Your task to perform on an android device: Add beats solo 3 to the cart on ebay.com, then select checkout. Image 0: 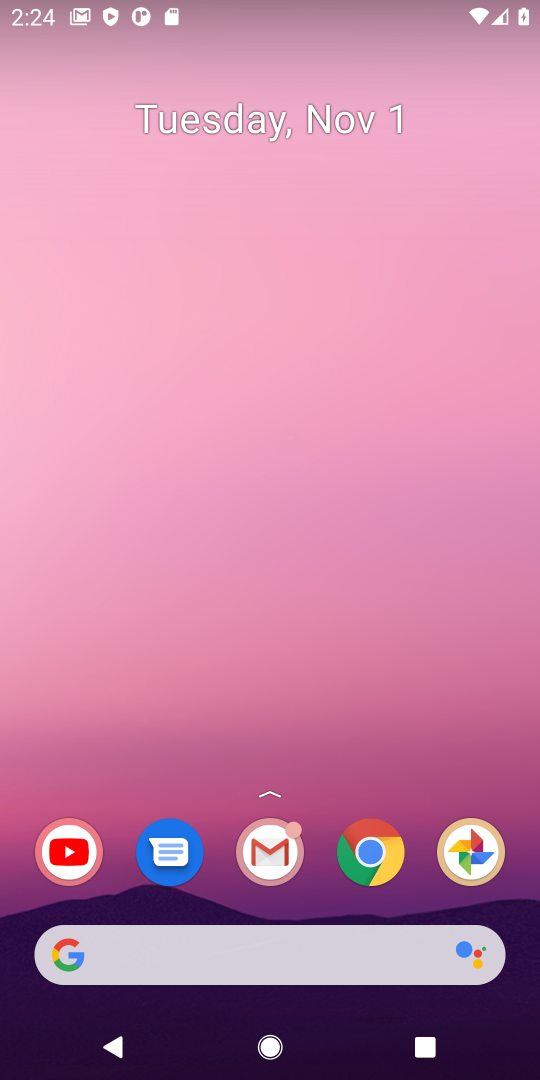
Step 0: click (325, 977)
Your task to perform on an android device: Add beats solo 3 to the cart on ebay.com, then select checkout. Image 1: 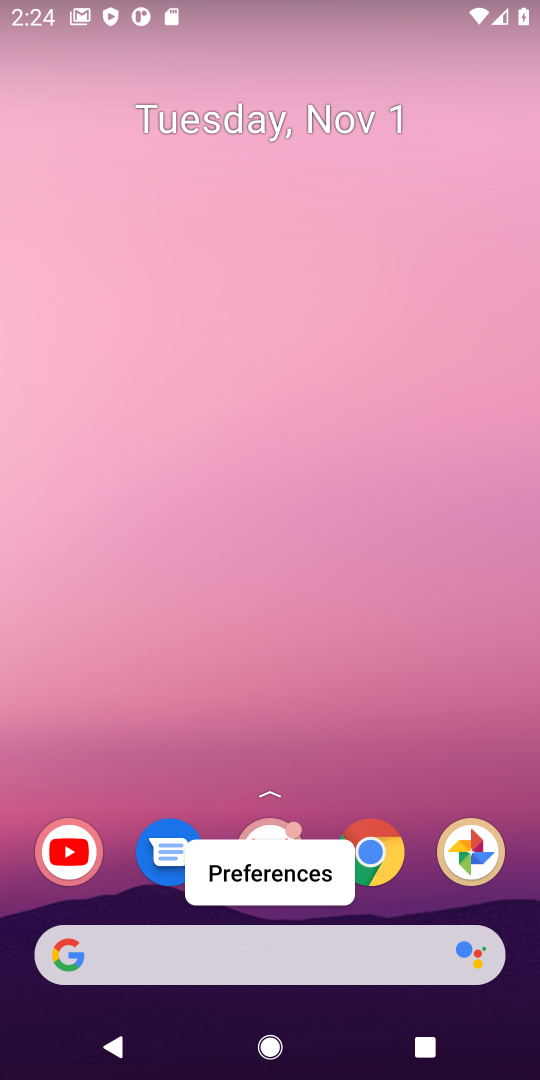
Step 1: click (325, 977)
Your task to perform on an android device: Add beats solo 3 to the cart on ebay.com, then select checkout. Image 2: 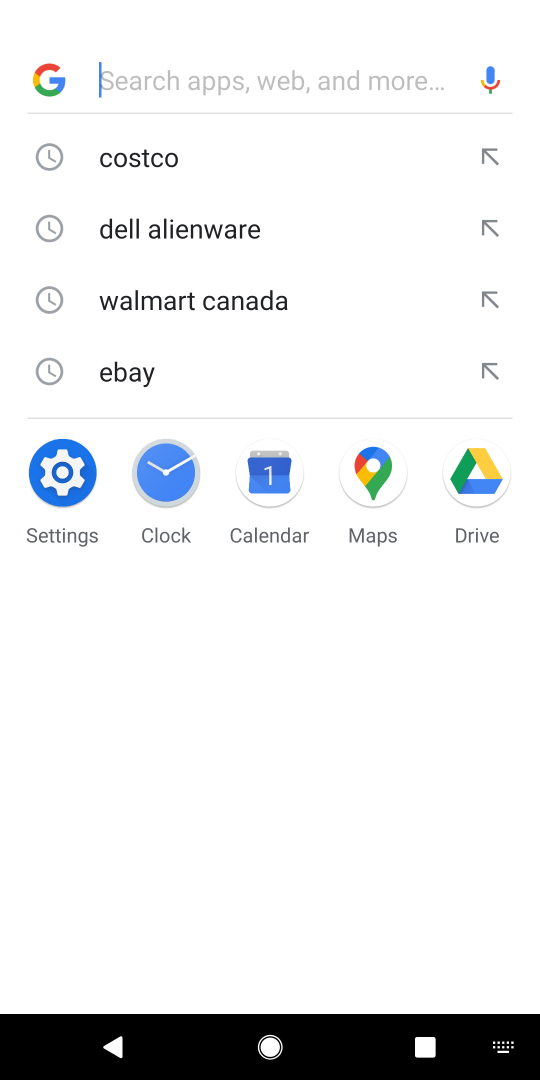
Step 2: click (87, 384)
Your task to perform on an android device: Add beats solo 3 to the cart on ebay.com, then select checkout. Image 3: 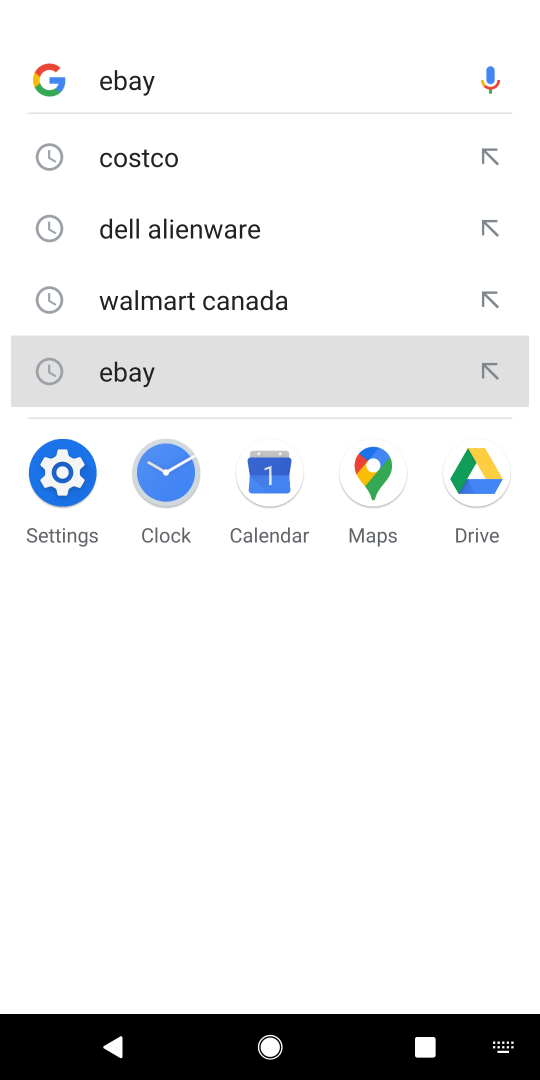
Step 3: click (108, 365)
Your task to perform on an android device: Add beats solo 3 to the cart on ebay.com, then select checkout. Image 4: 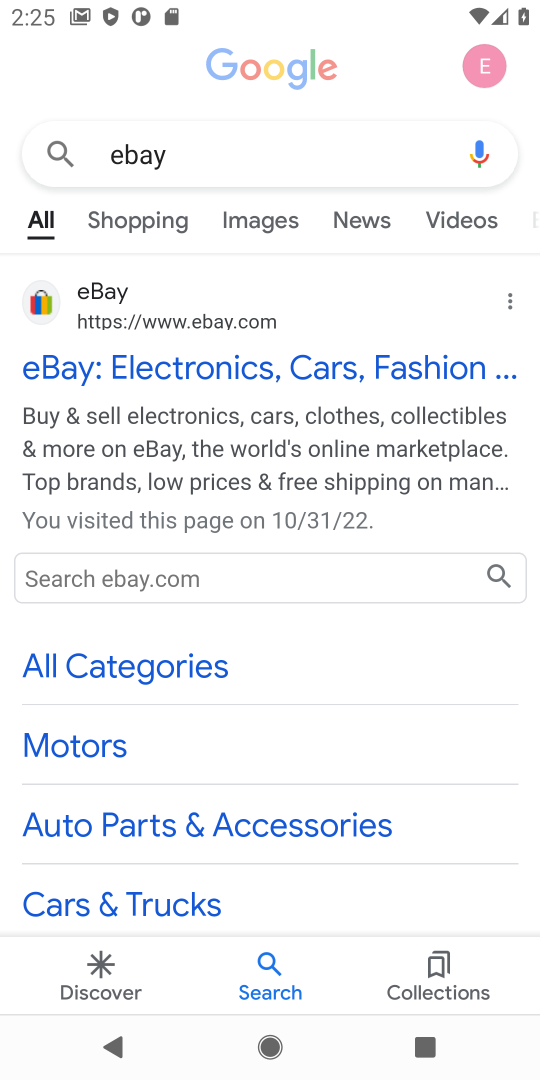
Step 4: press enter
Your task to perform on an android device: Add beats solo 3 to the cart on ebay.com, then select checkout. Image 5: 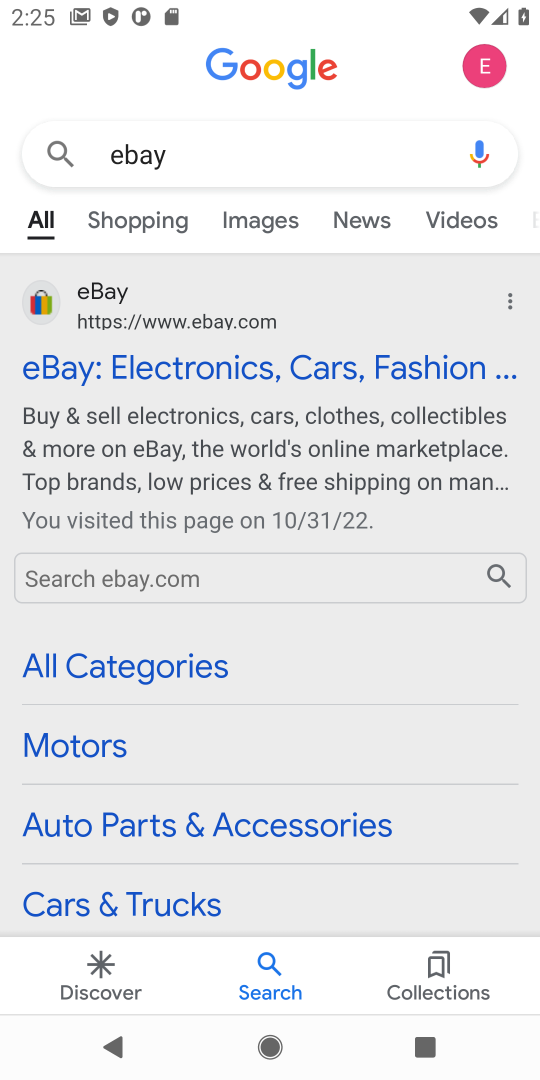
Step 5: click (129, 470)
Your task to perform on an android device: Add beats solo 3 to the cart on ebay.com, then select checkout. Image 6: 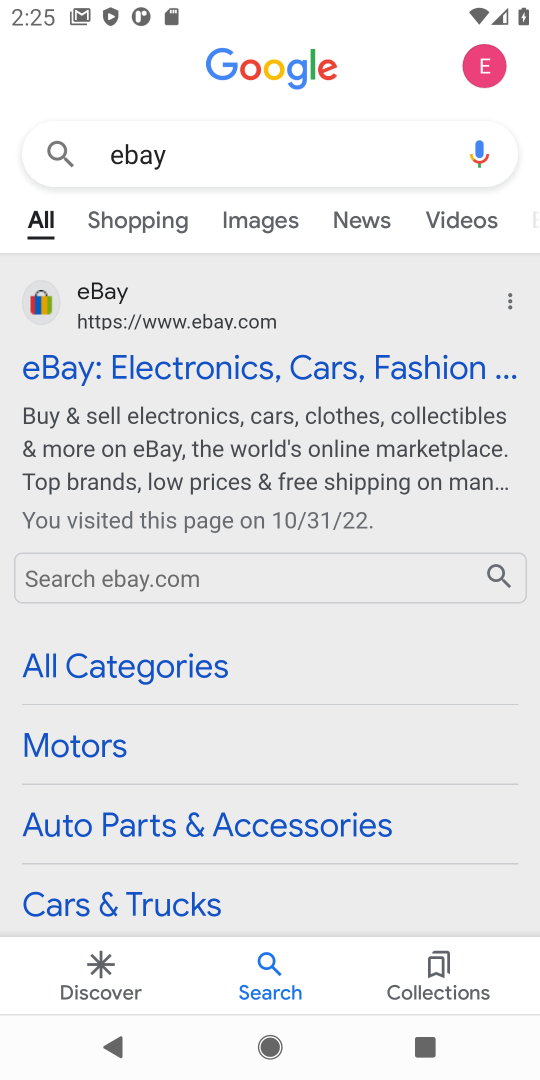
Step 6: click (191, 380)
Your task to perform on an android device: Add beats solo 3 to the cart on ebay.com, then select checkout. Image 7: 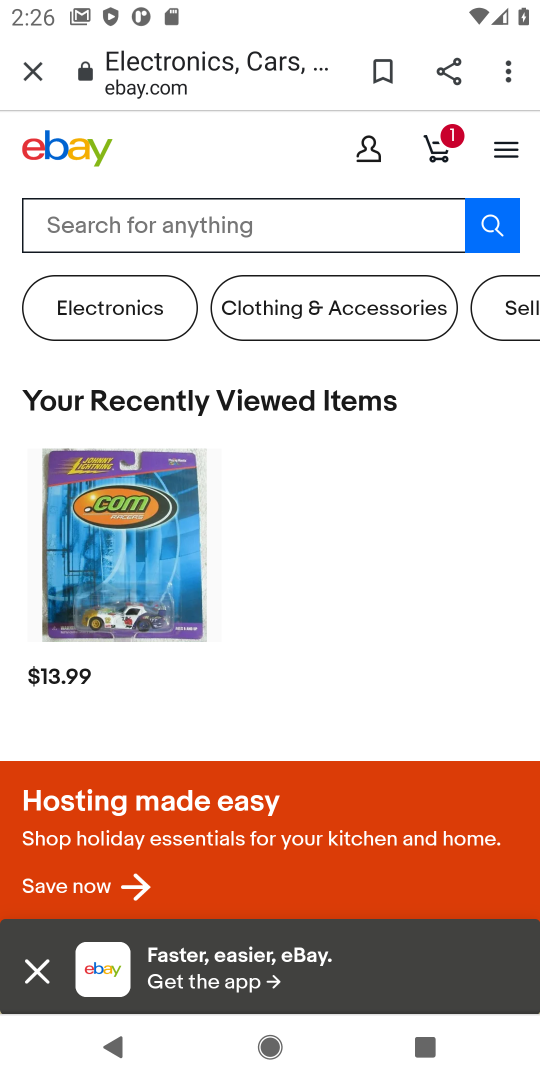
Step 7: click (208, 238)
Your task to perform on an android device: Add beats solo 3 to the cart on ebay.com, then select checkout. Image 8: 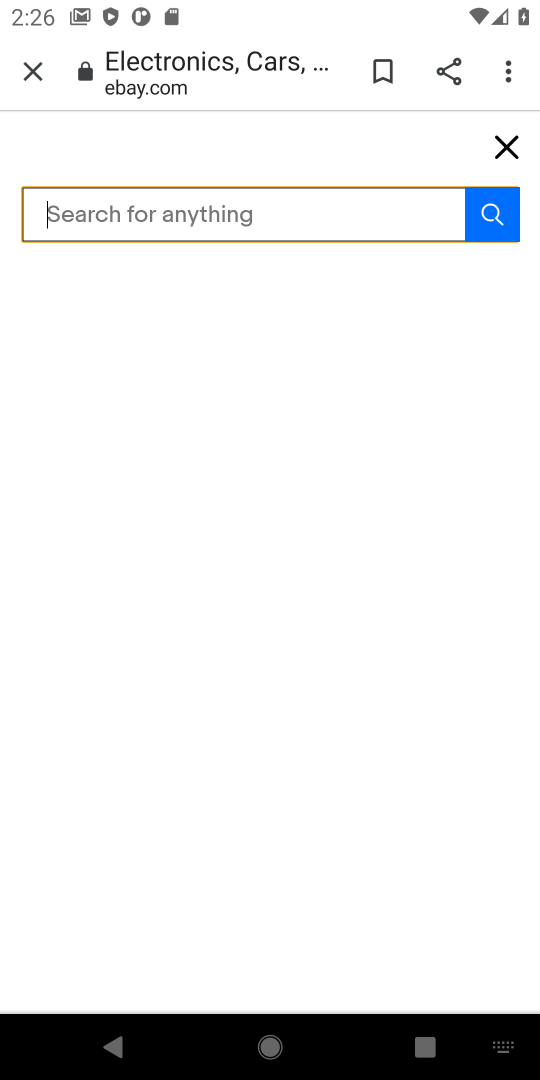
Step 8: type "beats solo 3"
Your task to perform on an android device: Add beats solo 3 to the cart on ebay.com, then select checkout. Image 9: 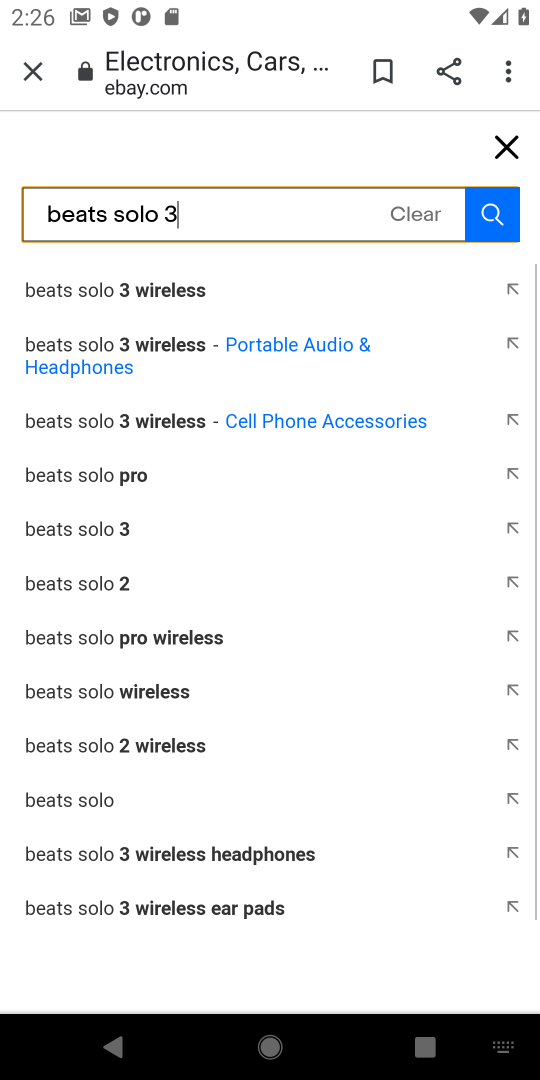
Step 9: type ""
Your task to perform on an android device: Add beats solo 3 to the cart on ebay.com, then select checkout. Image 10: 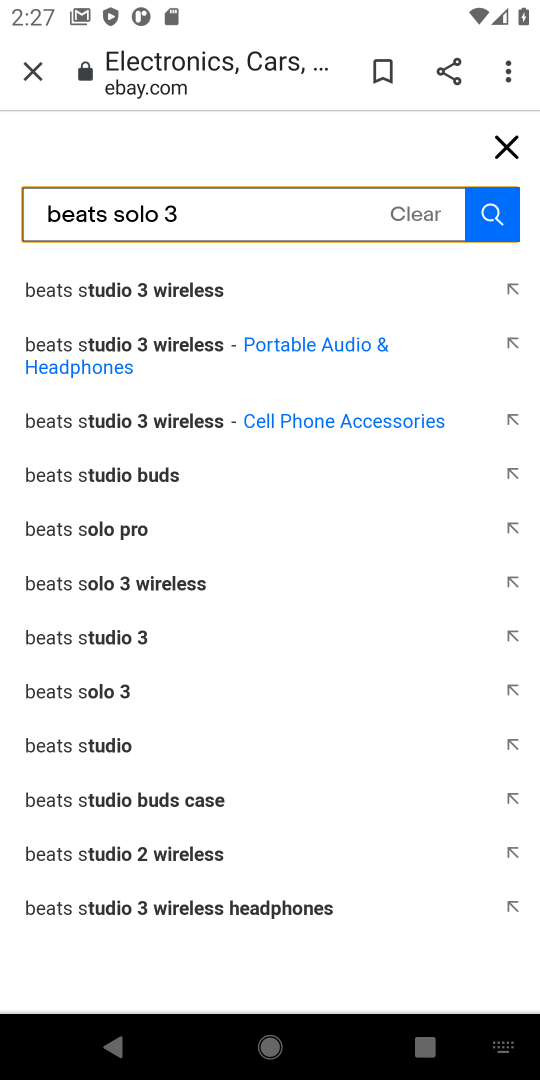
Step 10: press enter
Your task to perform on an android device: Add beats solo 3 to the cart on ebay.com, then select checkout. Image 11: 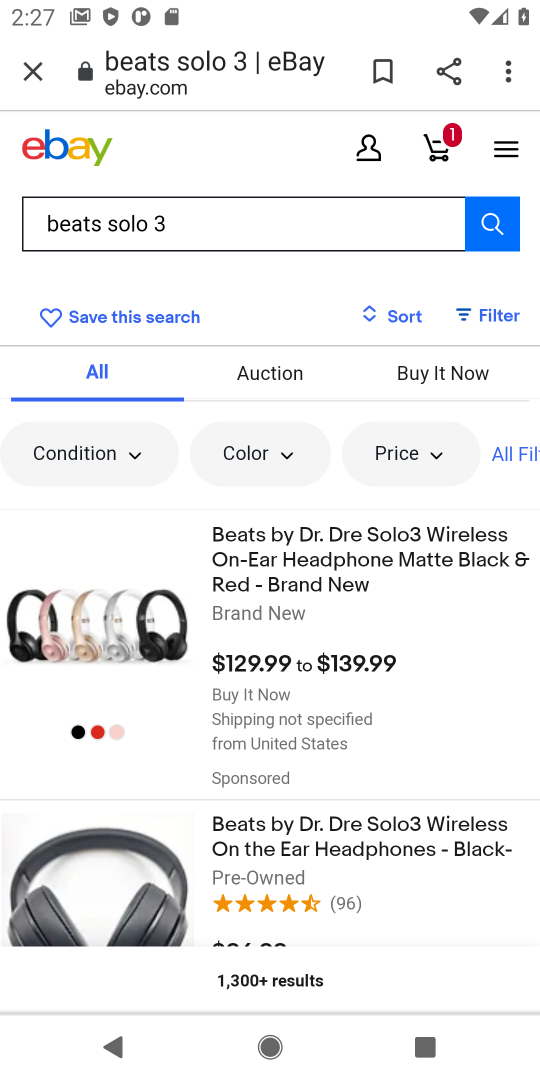
Step 11: click (398, 532)
Your task to perform on an android device: Add beats solo 3 to the cart on ebay.com, then select checkout. Image 12: 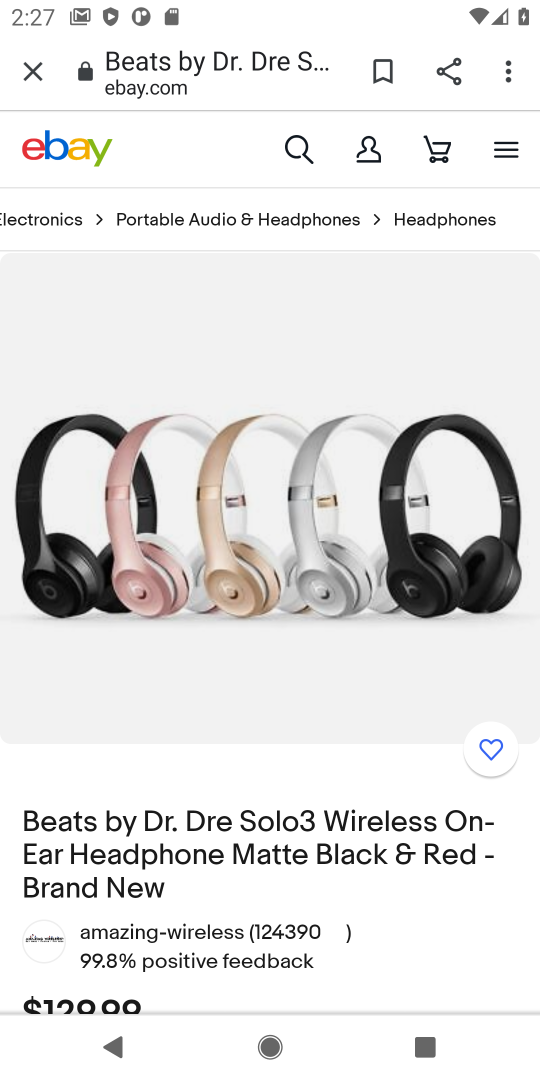
Step 12: drag from (351, 875) to (385, 355)
Your task to perform on an android device: Add beats solo 3 to the cart on ebay.com, then select checkout. Image 13: 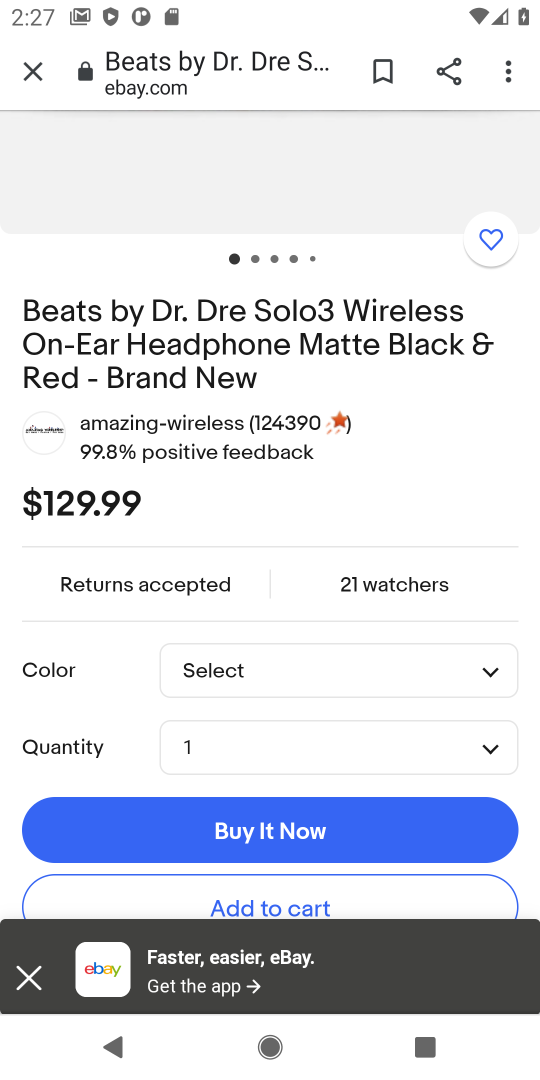
Step 13: click (298, 899)
Your task to perform on an android device: Add beats solo 3 to the cart on ebay.com, then select checkout. Image 14: 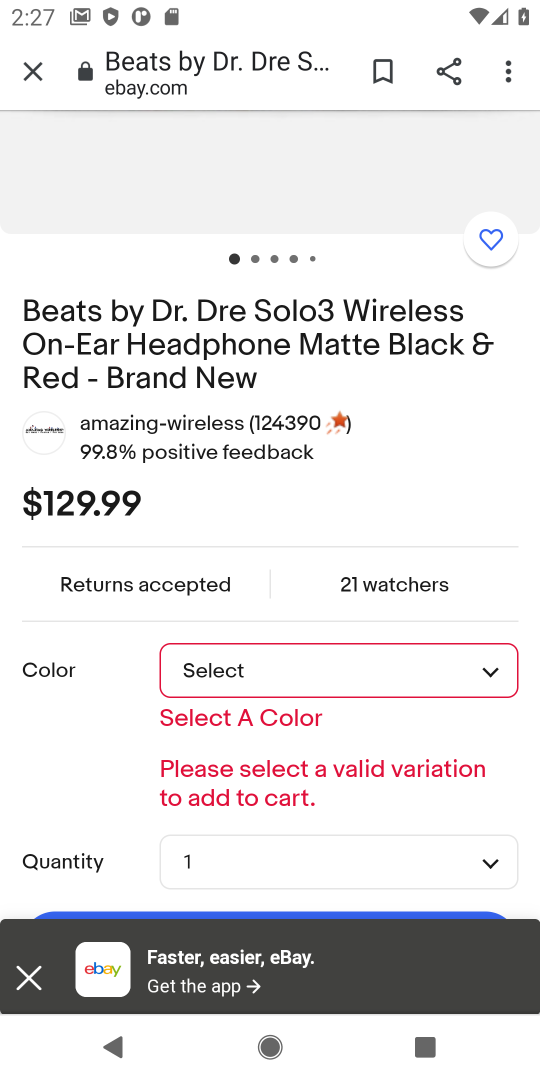
Step 14: click (32, 972)
Your task to perform on an android device: Add beats solo 3 to the cart on ebay.com, then select checkout. Image 15: 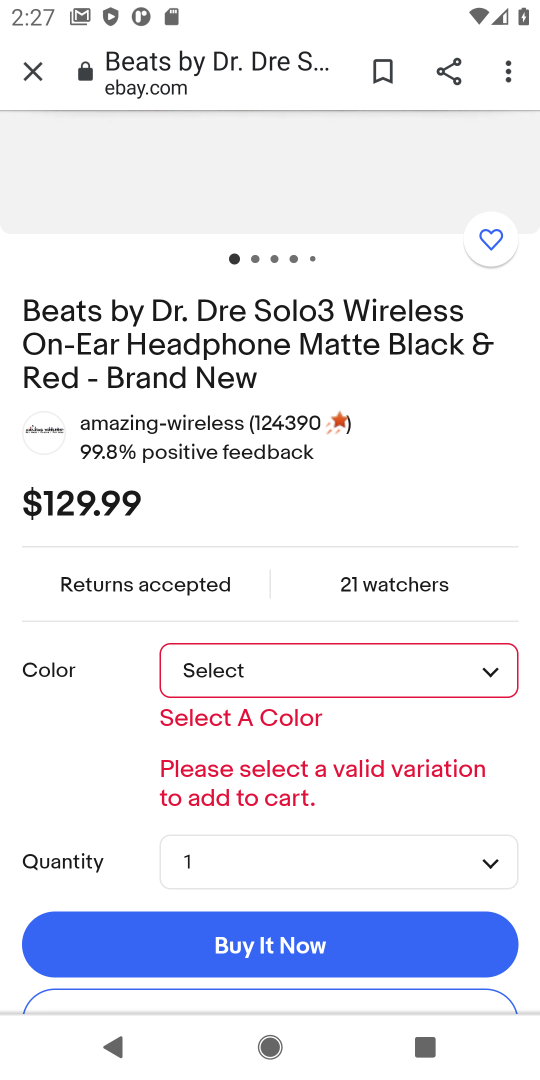
Step 15: drag from (131, 792) to (147, 411)
Your task to perform on an android device: Add beats solo 3 to the cart on ebay.com, then select checkout. Image 16: 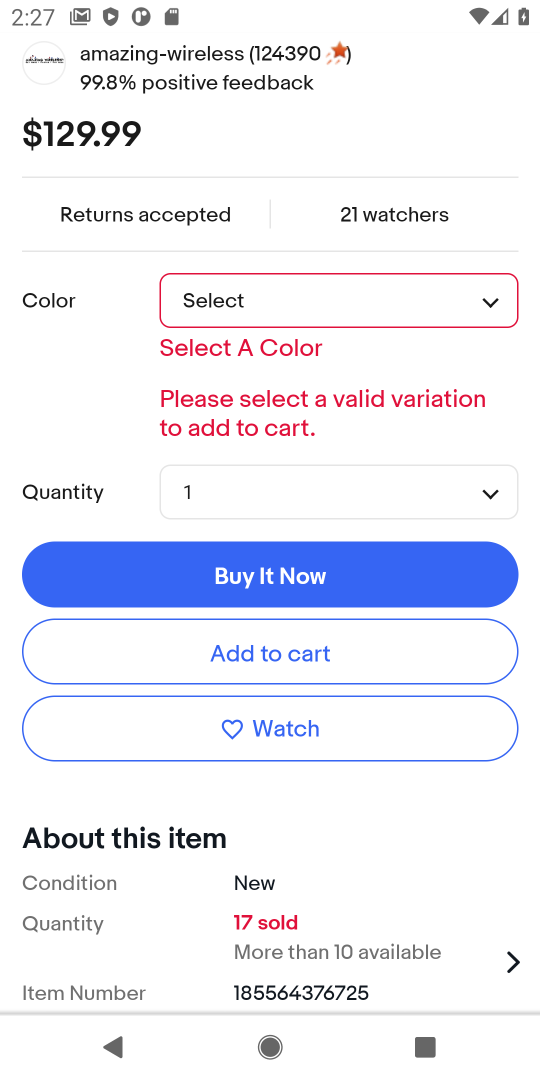
Step 16: click (260, 681)
Your task to perform on an android device: Add beats solo 3 to the cart on ebay.com, then select checkout. Image 17: 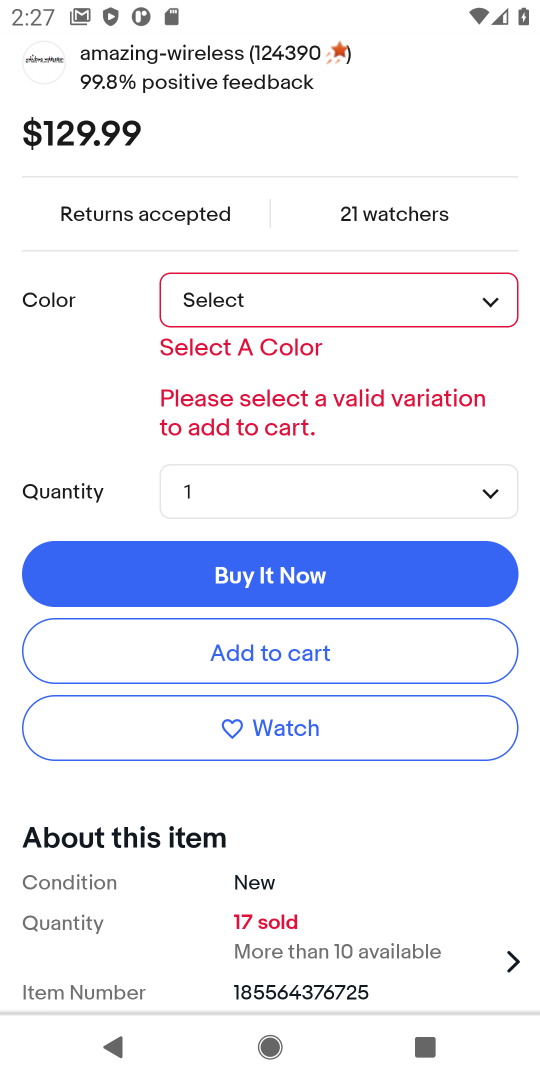
Step 17: click (264, 661)
Your task to perform on an android device: Add beats solo 3 to the cart on ebay.com, then select checkout. Image 18: 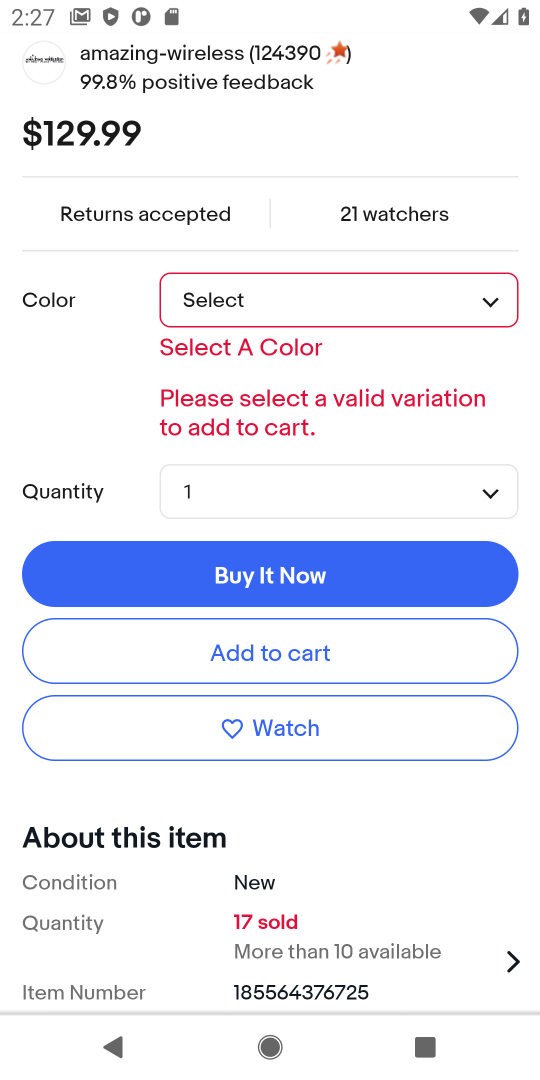
Step 18: click (264, 661)
Your task to perform on an android device: Add beats solo 3 to the cart on ebay.com, then select checkout. Image 19: 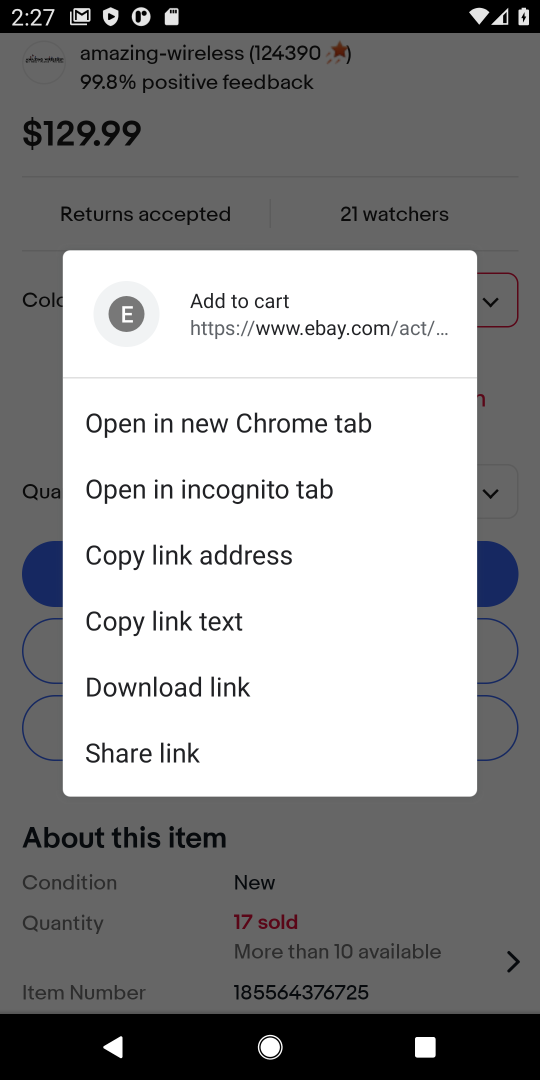
Step 19: click (512, 666)
Your task to perform on an android device: Add beats solo 3 to the cart on ebay.com, then select checkout. Image 20: 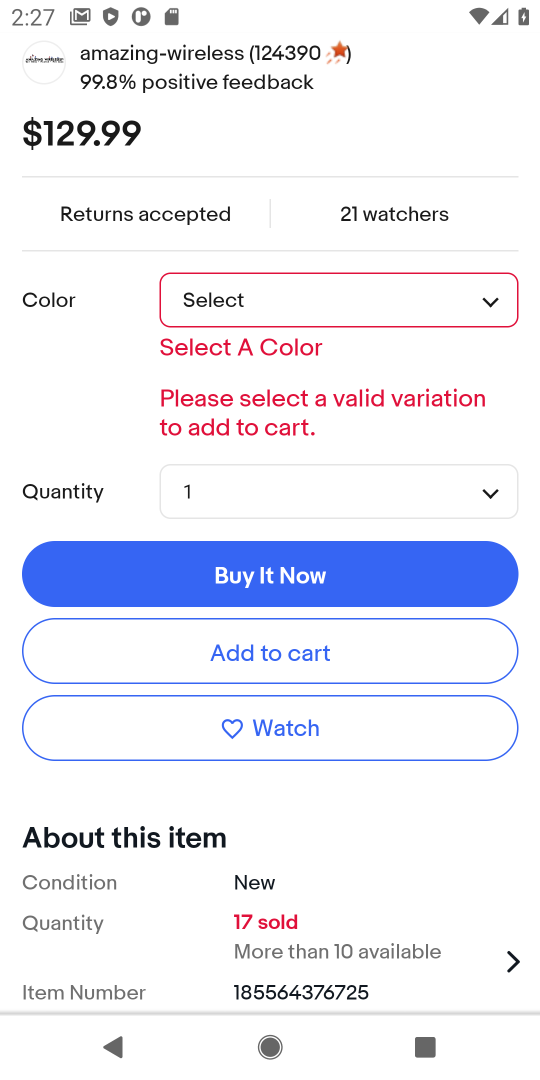
Step 20: click (272, 663)
Your task to perform on an android device: Add beats solo 3 to the cart on ebay.com, then select checkout. Image 21: 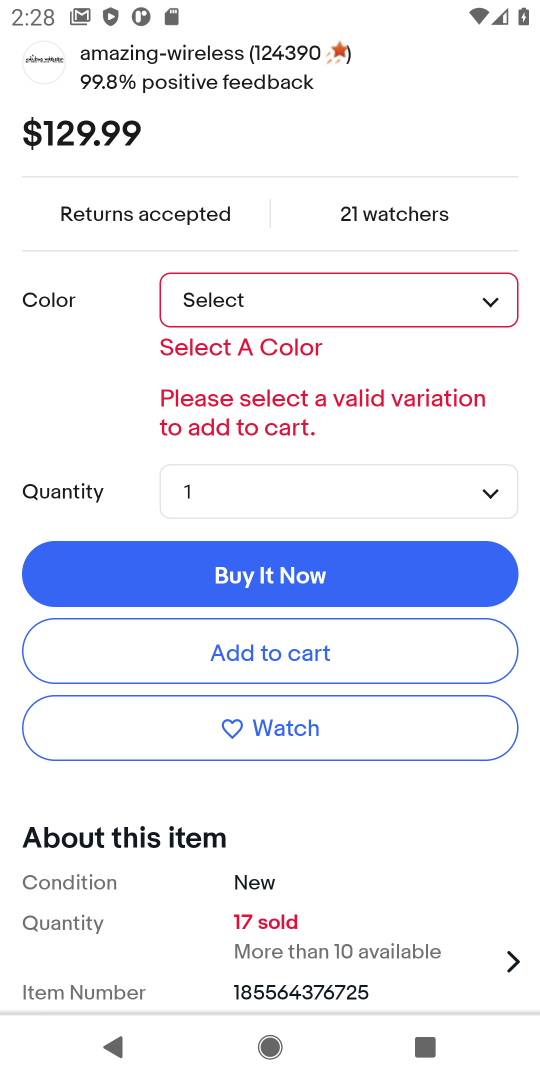
Step 21: click (293, 666)
Your task to perform on an android device: Add beats solo 3 to the cart on ebay.com, then select checkout. Image 22: 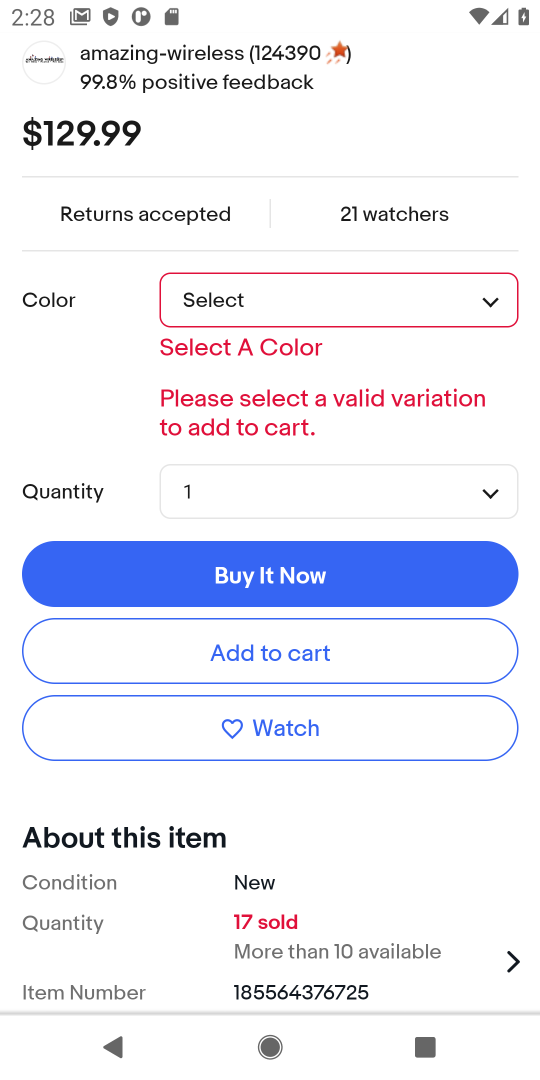
Step 22: click (290, 660)
Your task to perform on an android device: Add beats solo 3 to the cart on ebay.com, then select checkout. Image 23: 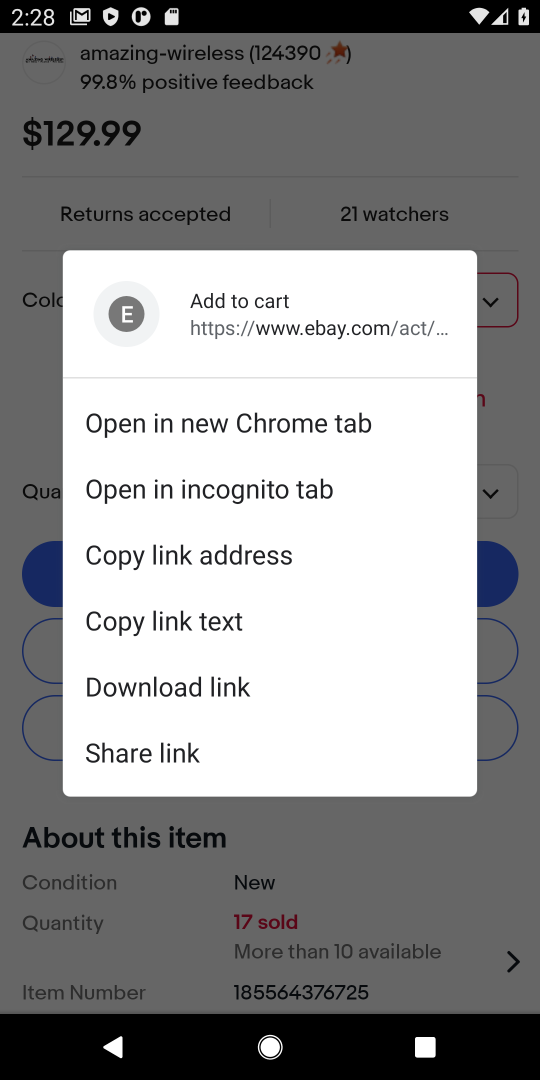
Step 23: click (290, 660)
Your task to perform on an android device: Add beats solo 3 to the cart on ebay.com, then select checkout. Image 24: 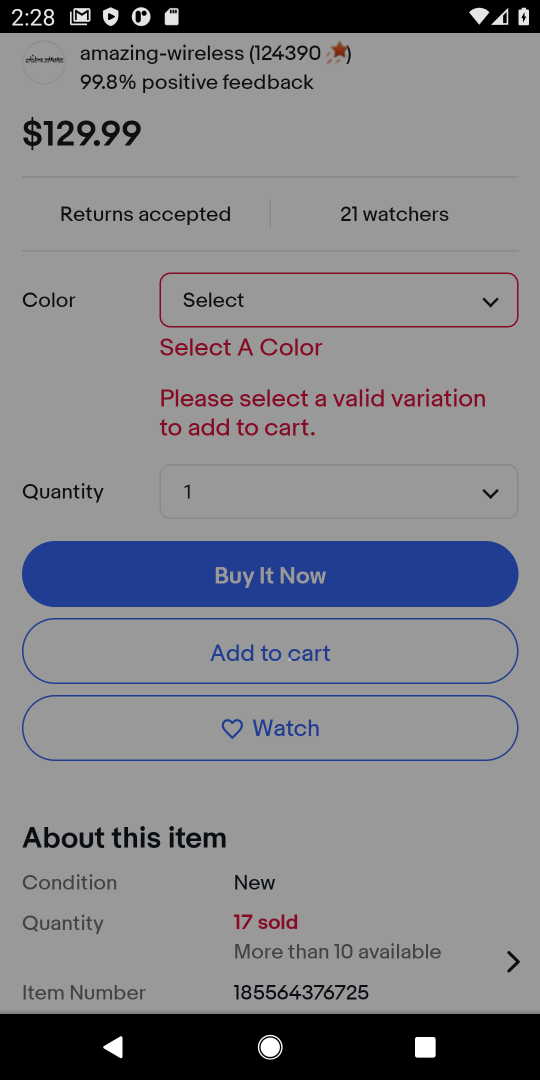
Step 24: click (486, 661)
Your task to perform on an android device: Add beats solo 3 to the cart on ebay.com, then select checkout. Image 25: 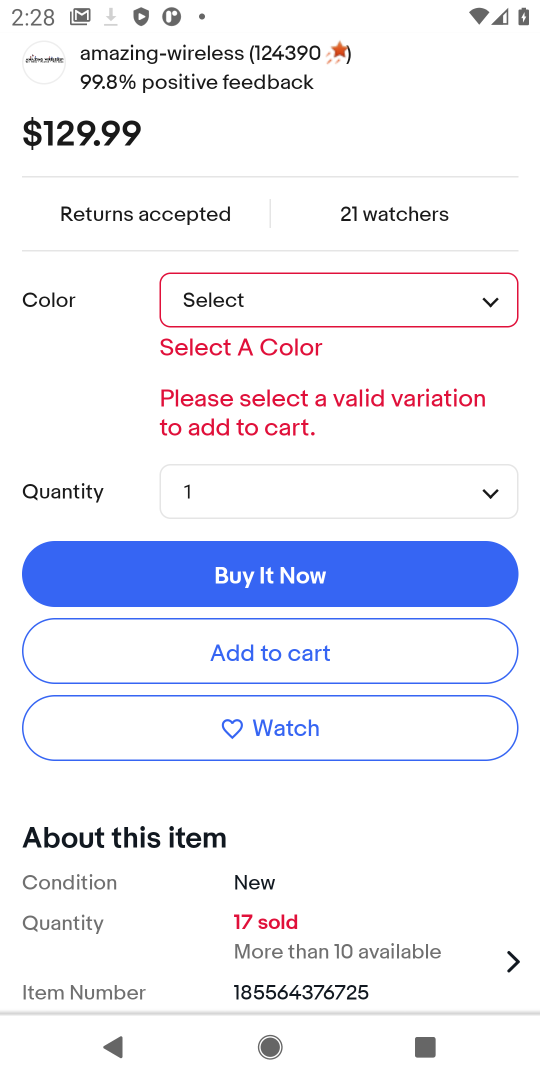
Step 25: click (254, 668)
Your task to perform on an android device: Add beats solo 3 to the cart on ebay.com, then select checkout. Image 26: 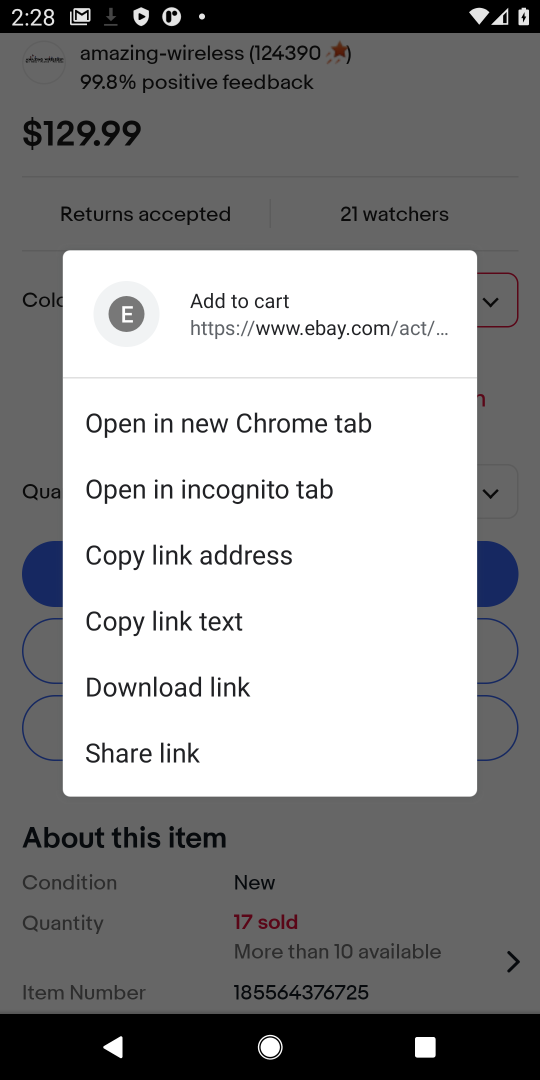
Step 26: click (332, 834)
Your task to perform on an android device: Add beats solo 3 to the cart on ebay.com, then select checkout. Image 27: 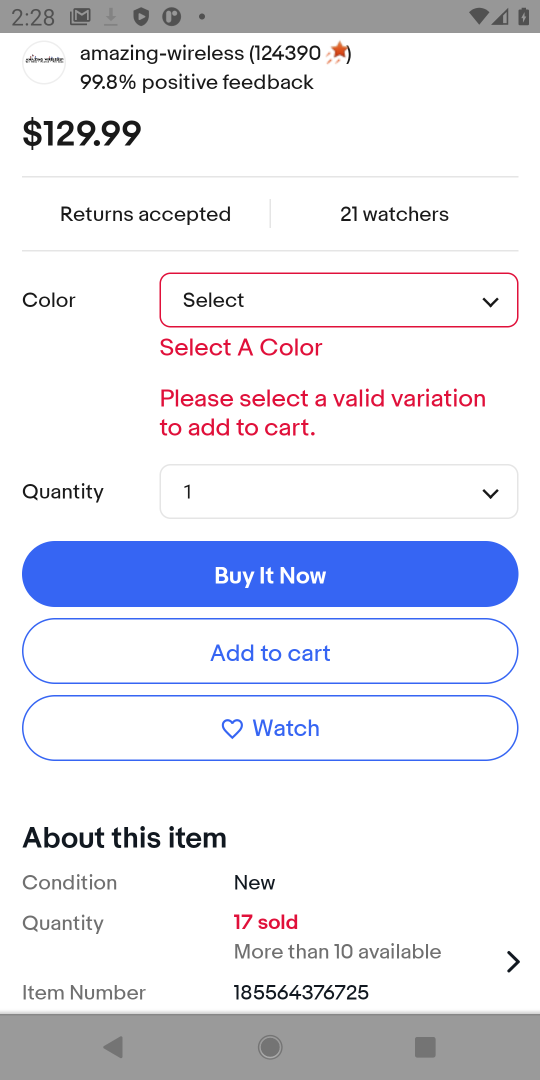
Step 27: click (264, 660)
Your task to perform on an android device: Add beats solo 3 to the cart on ebay.com, then select checkout. Image 28: 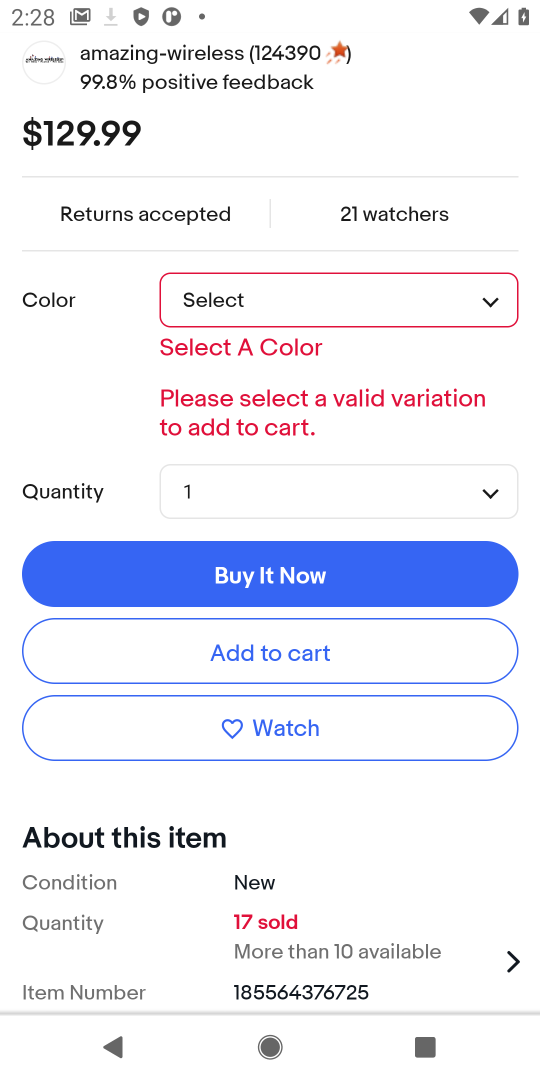
Step 28: task complete